Your task to perform on an android device: see tabs open on other devices in the chrome app Image 0: 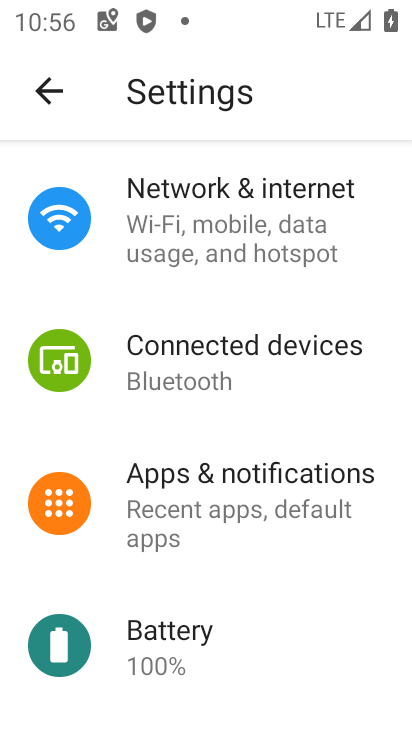
Step 0: press home button
Your task to perform on an android device: see tabs open on other devices in the chrome app Image 1: 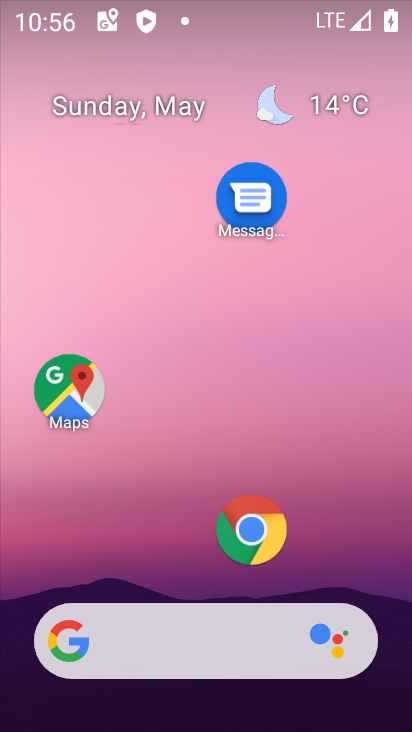
Step 1: click (251, 540)
Your task to perform on an android device: see tabs open on other devices in the chrome app Image 2: 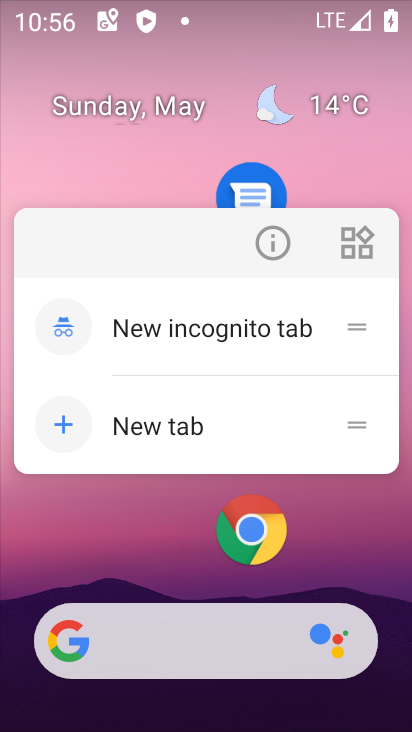
Step 2: click (247, 544)
Your task to perform on an android device: see tabs open on other devices in the chrome app Image 3: 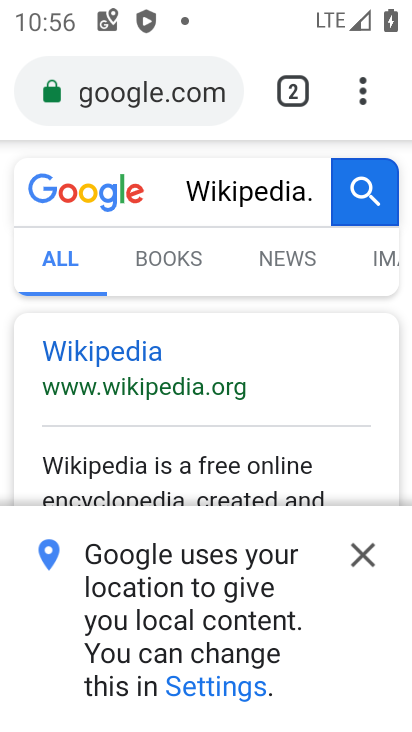
Step 3: click (370, 556)
Your task to perform on an android device: see tabs open on other devices in the chrome app Image 4: 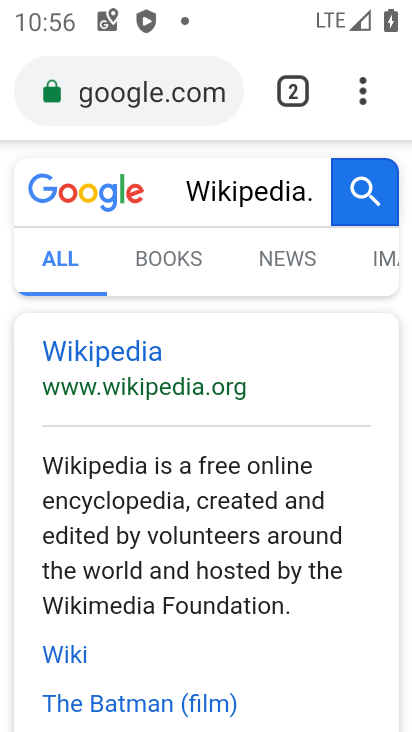
Step 4: click (361, 88)
Your task to perform on an android device: see tabs open on other devices in the chrome app Image 5: 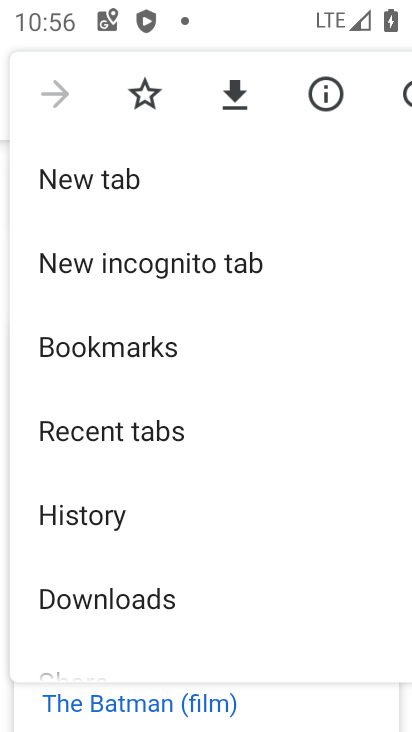
Step 5: click (158, 446)
Your task to perform on an android device: see tabs open on other devices in the chrome app Image 6: 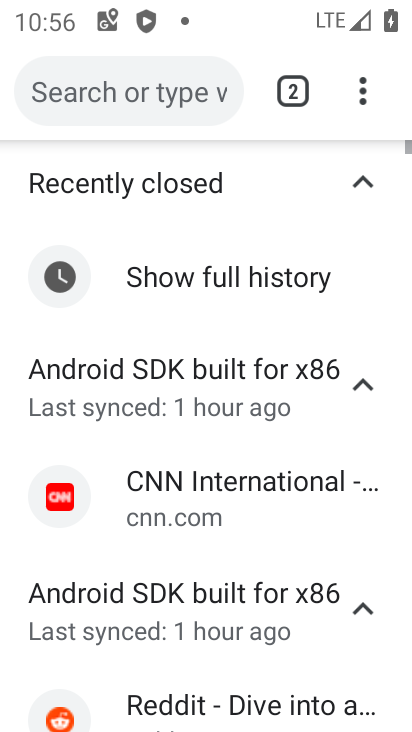
Step 6: task complete